Your task to perform on an android device: check android version Image 0: 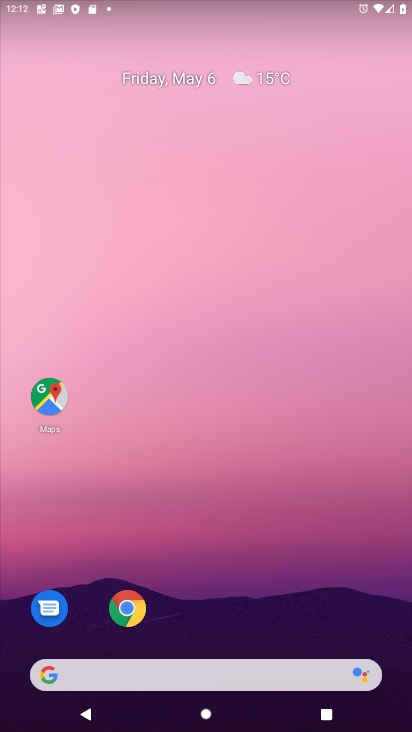
Step 0: drag from (257, 621) to (260, 113)
Your task to perform on an android device: check android version Image 1: 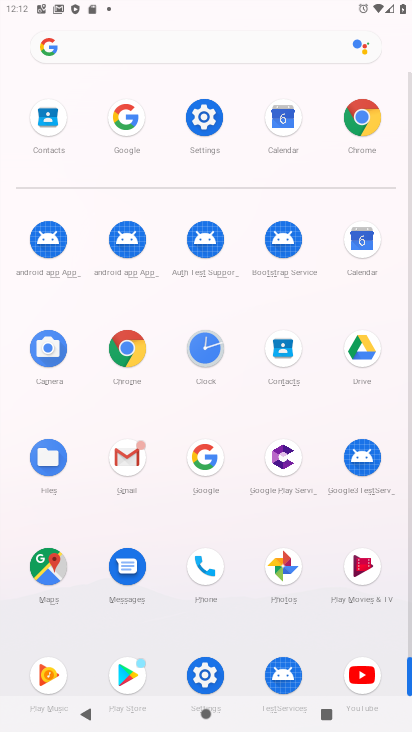
Step 1: click (200, 124)
Your task to perform on an android device: check android version Image 2: 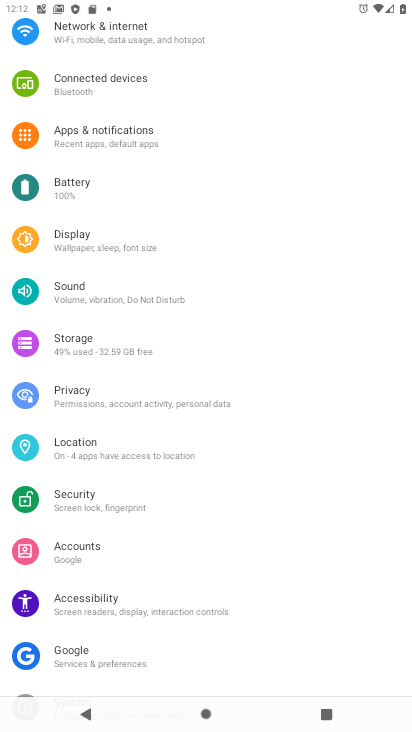
Step 2: drag from (164, 647) to (195, 418)
Your task to perform on an android device: check android version Image 3: 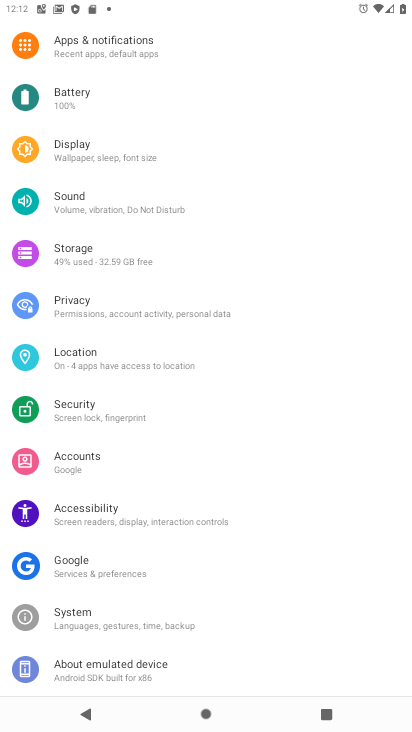
Step 3: click (158, 676)
Your task to perform on an android device: check android version Image 4: 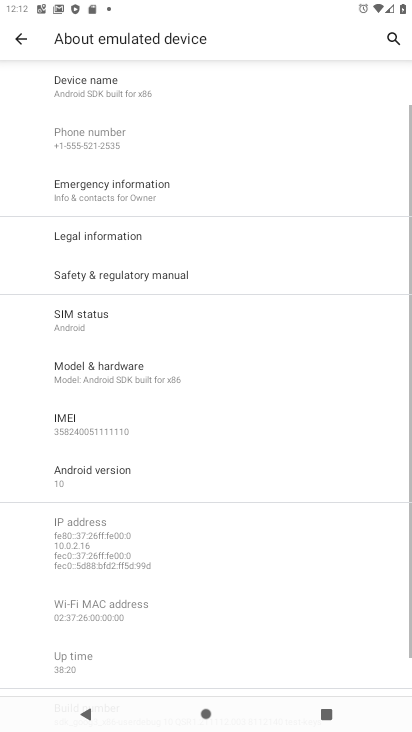
Step 4: click (120, 474)
Your task to perform on an android device: check android version Image 5: 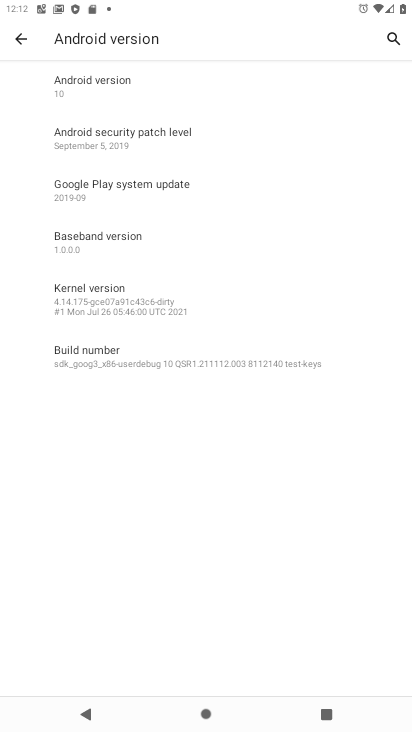
Step 5: task complete